Your task to perform on an android device: toggle data saver in the chrome app Image 0: 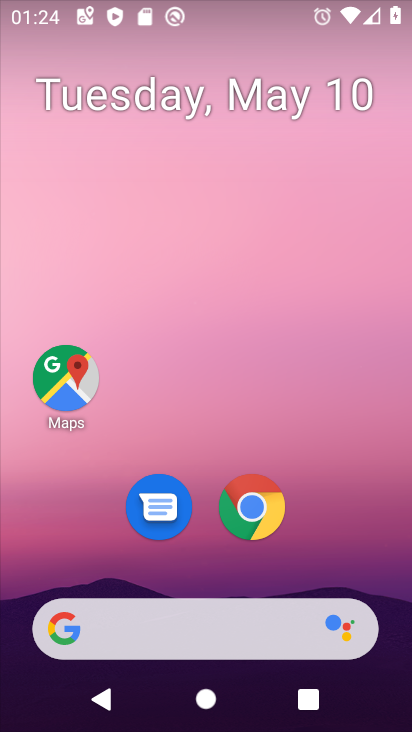
Step 0: click (247, 499)
Your task to perform on an android device: toggle data saver in the chrome app Image 1: 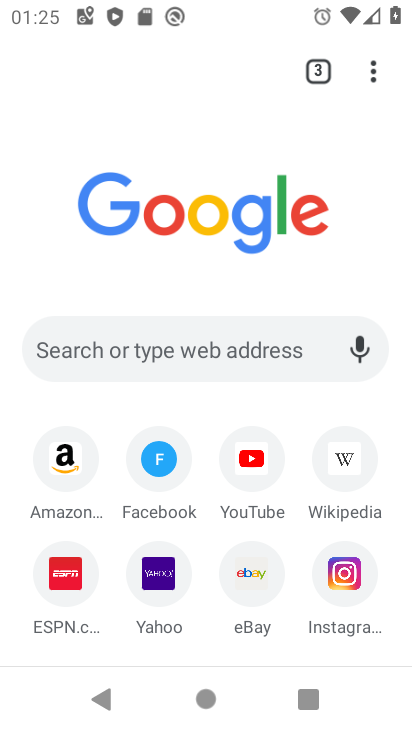
Step 1: click (366, 71)
Your task to perform on an android device: toggle data saver in the chrome app Image 2: 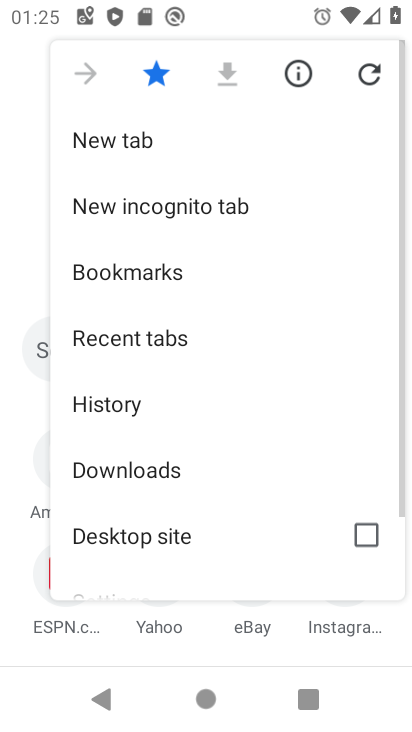
Step 2: drag from (252, 512) to (257, 183)
Your task to perform on an android device: toggle data saver in the chrome app Image 3: 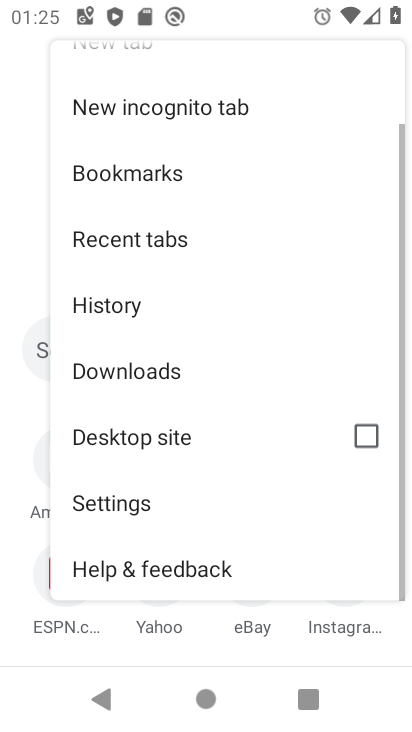
Step 3: click (117, 501)
Your task to perform on an android device: toggle data saver in the chrome app Image 4: 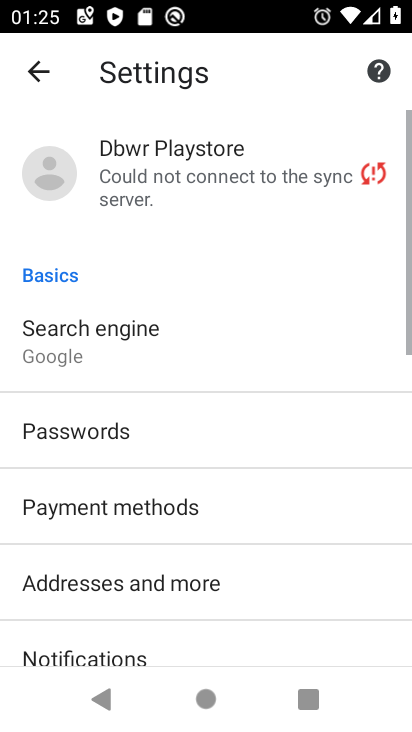
Step 4: drag from (217, 600) to (241, 211)
Your task to perform on an android device: toggle data saver in the chrome app Image 5: 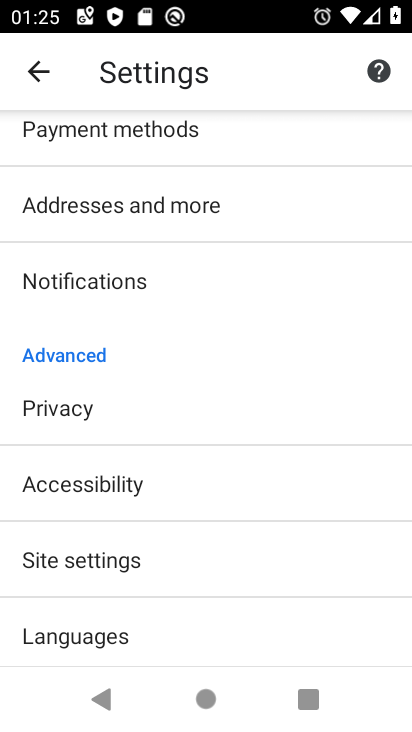
Step 5: drag from (127, 635) to (139, 360)
Your task to perform on an android device: toggle data saver in the chrome app Image 6: 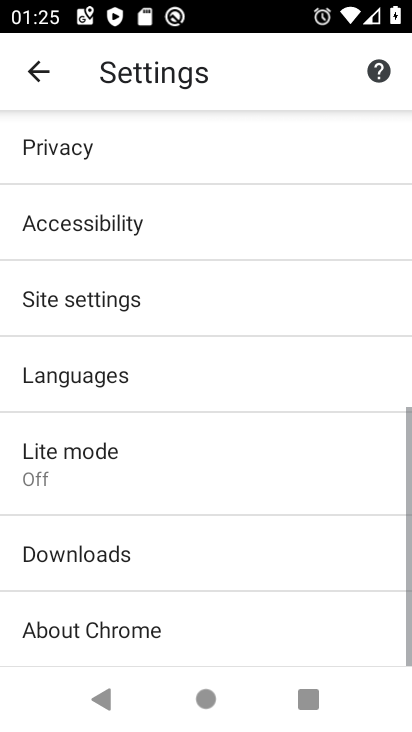
Step 6: click (78, 479)
Your task to perform on an android device: toggle data saver in the chrome app Image 7: 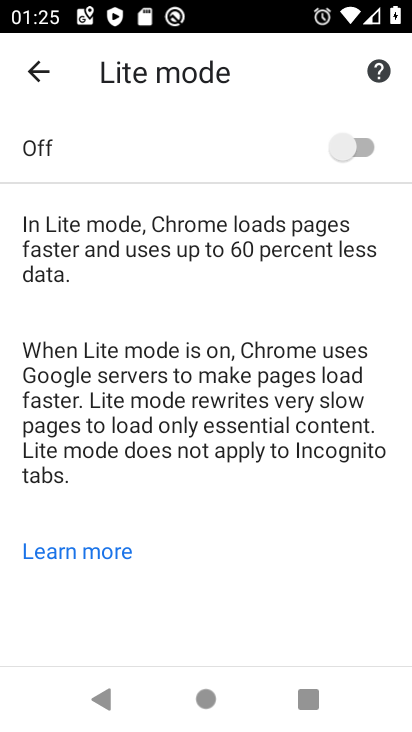
Step 7: click (356, 144)
Your task to perform on an android device: toggle data saver in the chrome app Image 8: 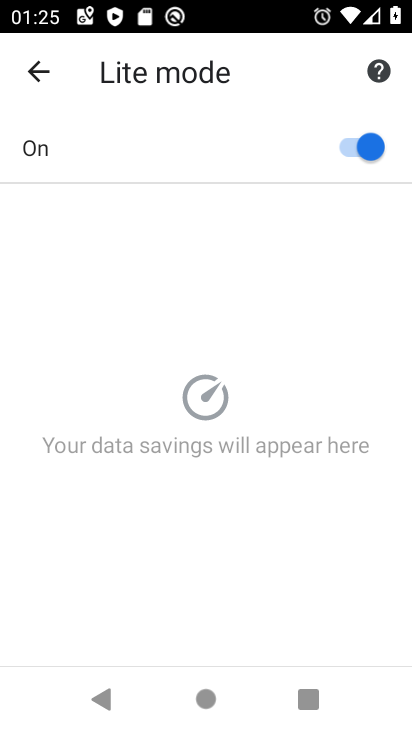
Step 8: task complete